Your task to perform on an android device: toggle airplane mode Image 0: 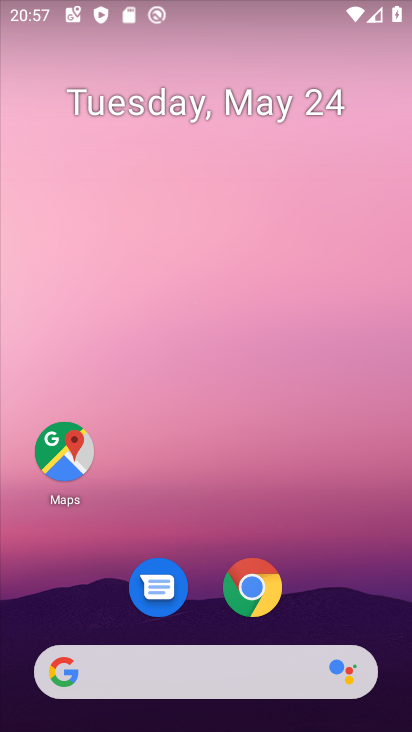
Step 0: drag from (352, 547) to (267, 8)
Your task to perform on an android device: toggle airplane mode Image 1: 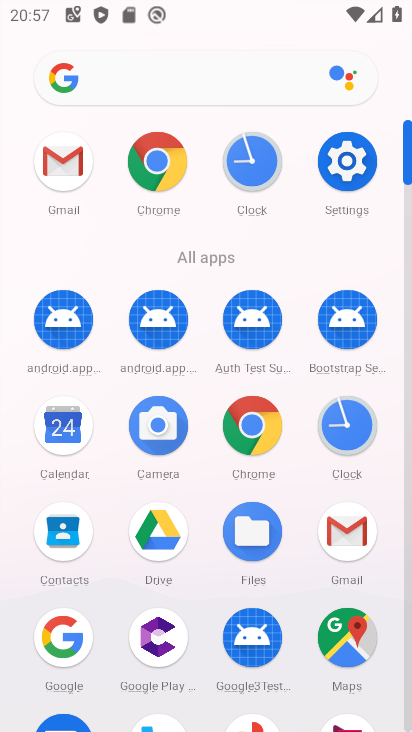
Step 1: click (344, 156)
Your task to perform on an android device: toggle airplane mode Image 2: 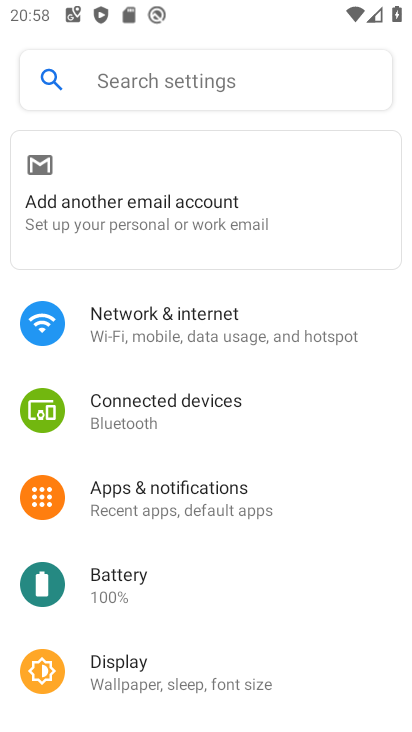
Step 2: click (226, 322)
Your task to perform on an android device: toggle airplane mode Image 3: 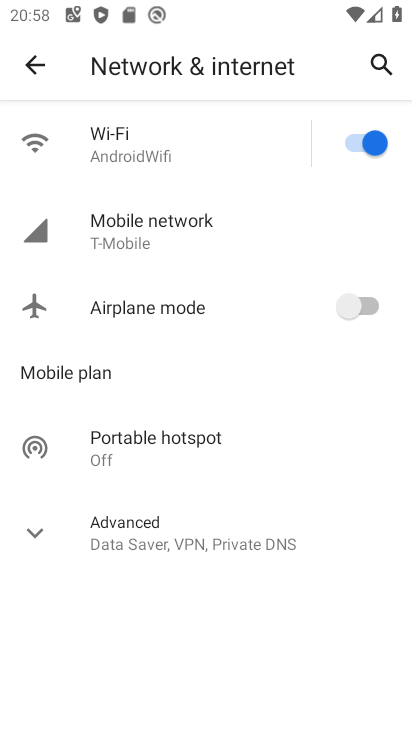
Step 3: click (31, 520)
Your task to perform on an android device: toggle airplane mode Image 4: 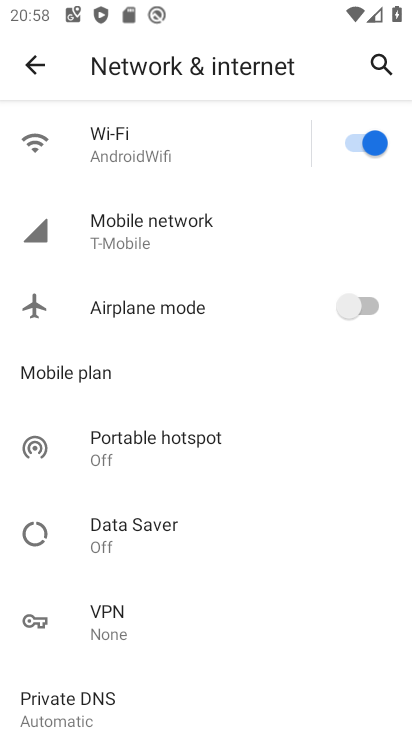
Step 4: click (359, 300)
Your task to perform on an android device: toggle airplane mode Image 5: 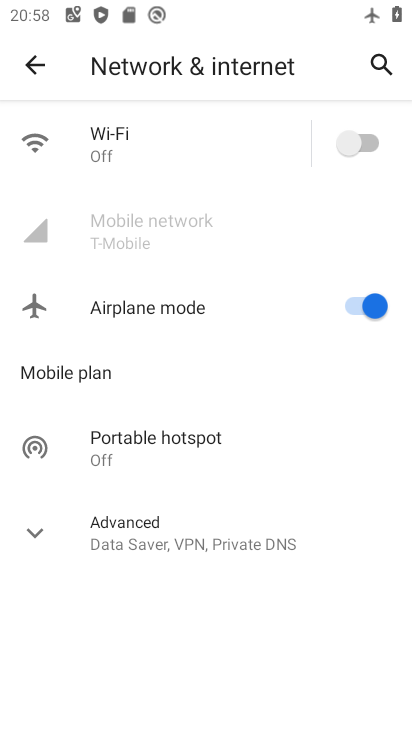
Step 5: click (43, 534)
Your task to perform on an android device: toggle airplane mode Image 6: 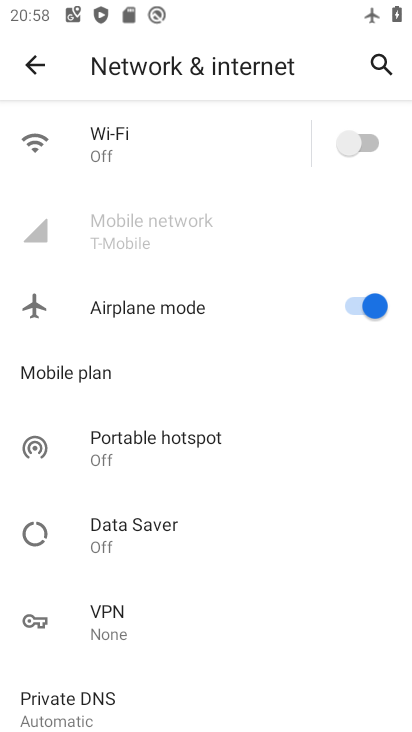
Step 6: task complete